Your task to perform on an android device: Open Google Chrome Image 0: 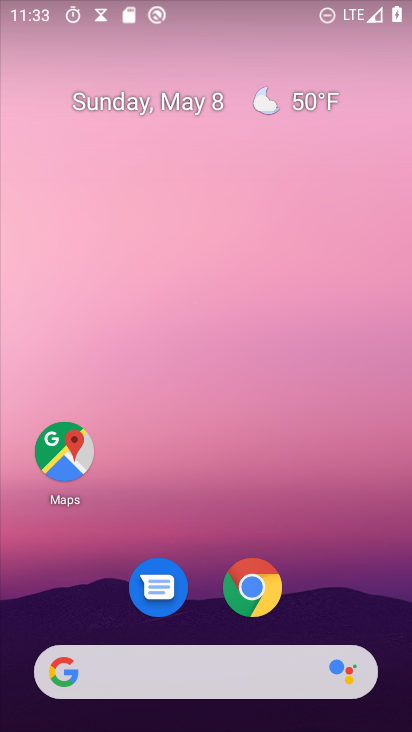
Step 0: click (254, 588)
Your task to perform on an android device: Open Google Chrome Image 1: 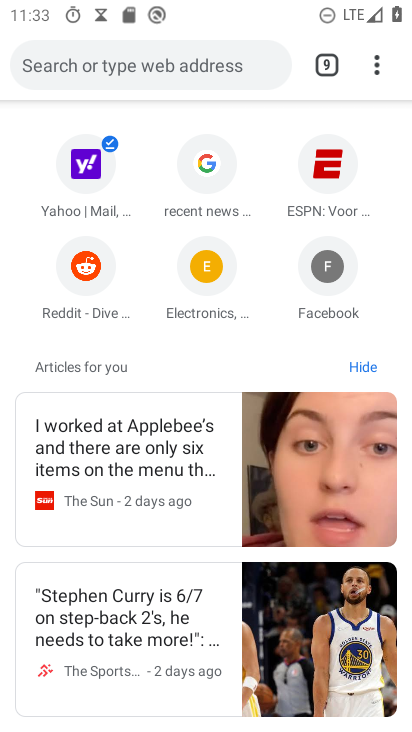
Step 1: task complete